Your task to perform on an android device: Open the calendar app, open the side menu, and click the "Day" option Image 0: 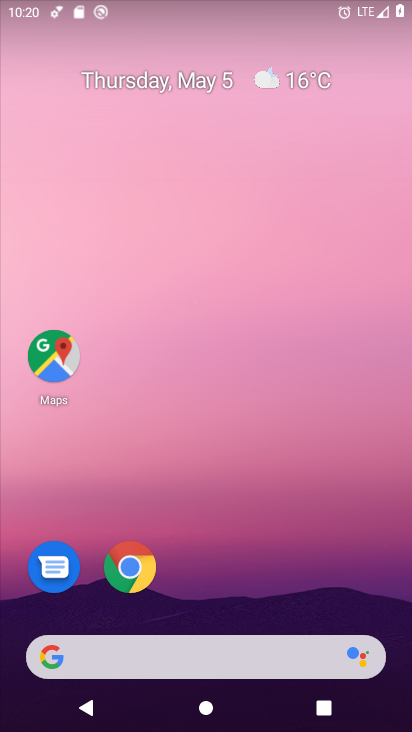
Step 0: drag from (257, 524) to (253, 27)
Your task to perform on an android device: Open the calendar app, open the side menu, and click the "Day" option Image 1: 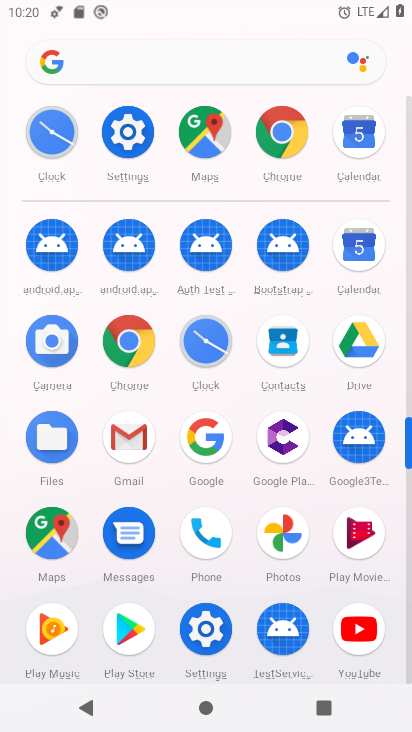
Step 1: click (361, 131)
Your task to perform on an android device: Open the calendar app, open the side menu, and click the "Day" option Image 2: 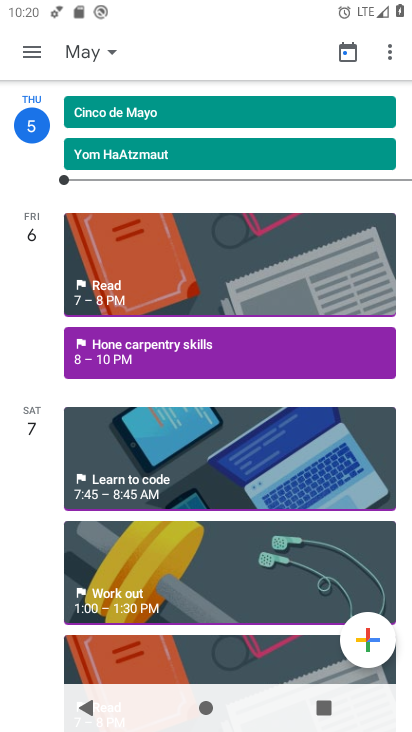
Step 2: click (32, 46)
Your task to perform on an android device: Open the calendar app, open the side menu, and click the "Day" option Image 3: 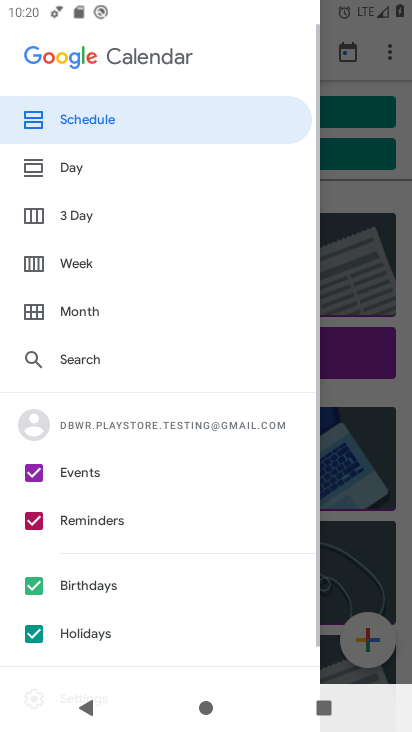
Step 3: click (61, 176)
Your task to perform on an android device: Open the calendar app, open the side menu, and click the "Day" option Image 4: 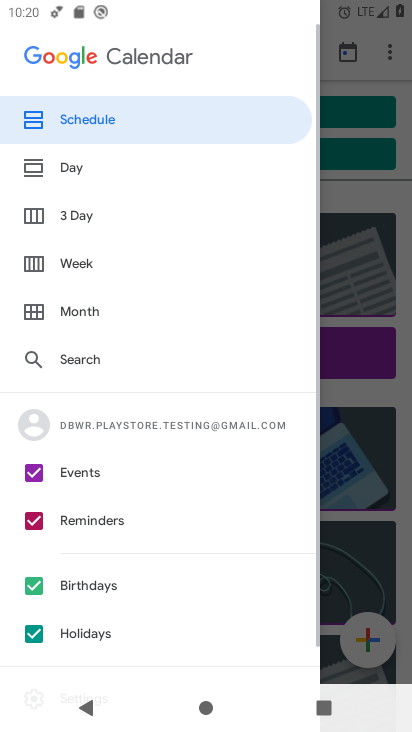
Step 4: click (69, 164)
Your task to perform on an android device: Open the calendar app, open the side menu, and click the "Day" option Image 5: 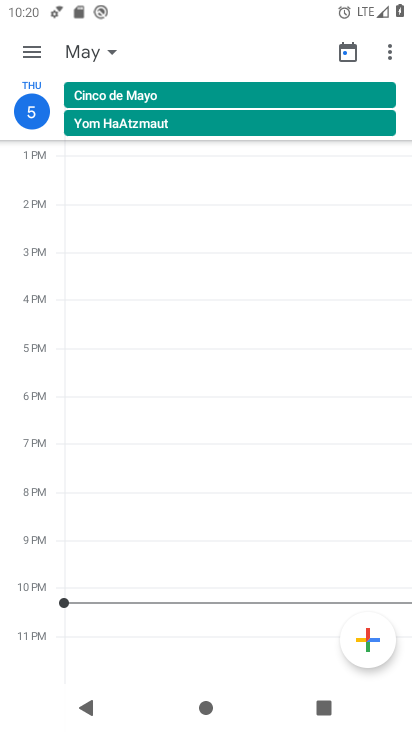
Step 5: task complete